Your task to perform on an android device: Go to Maps Image 0: 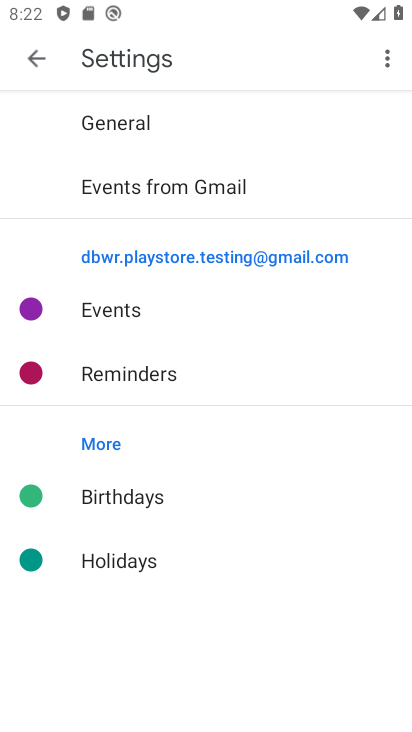
Step 0: press home button
Your task to perform on an android device: Go to Maps Image 1: 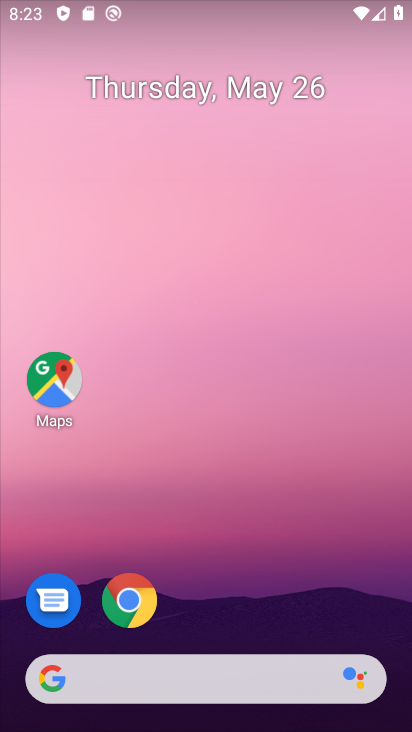
Step 1: click (45, 386)
Your task to perform on an android device: Go to Maps Image 2: 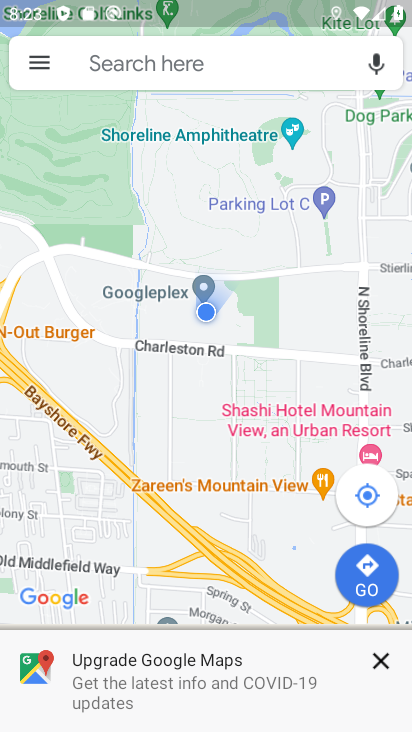
Step 2: task complete